Your task to perform on an android device: open chrome and create a bookmark for the current page Image 0: 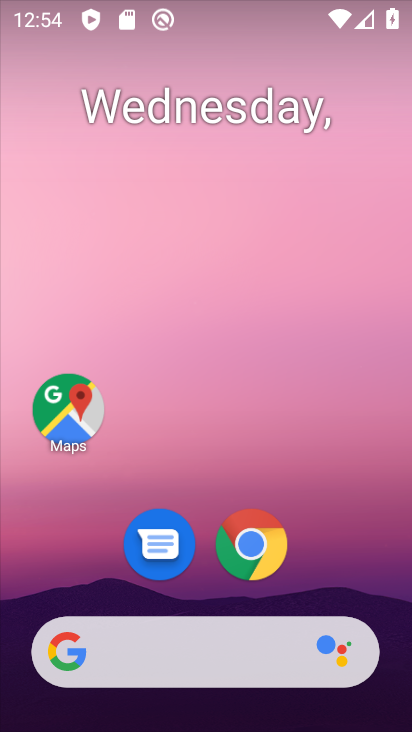
Step 0: click (244, 536)
Your task to perform on an android device: open chrome and create a bookmark for the current page Image 1: 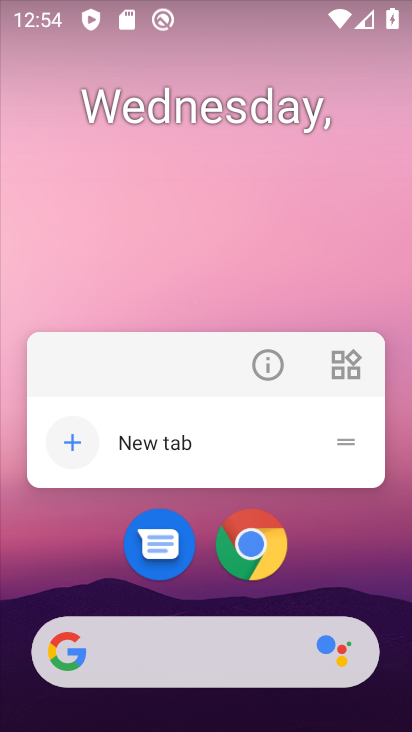
Step 1: click (242, 560)
Your task to perform on an android device: open chrome and create a bookmark for the current page Image 2: 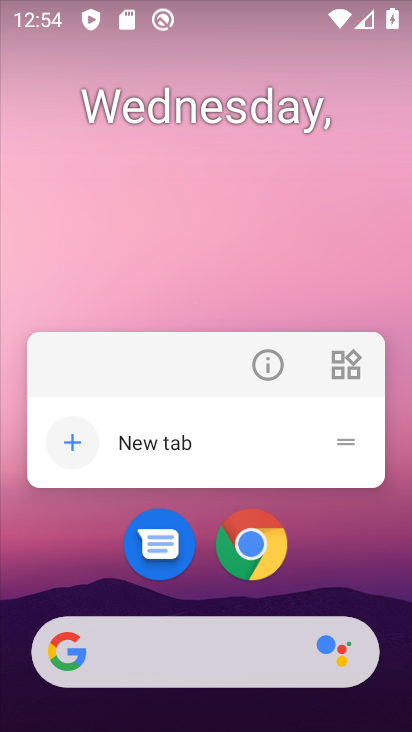
Step 2: click (242, 560)
Your task to perform on an android device: open chrome and create a bookmark for the current page Image 3: 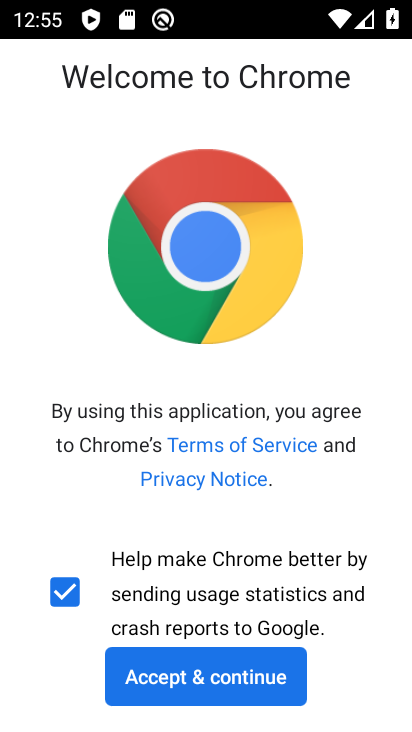
Step 3: click (199, 661)
Your task to perform on an android device: open chrome and create a bookmark for the current page Image 4: 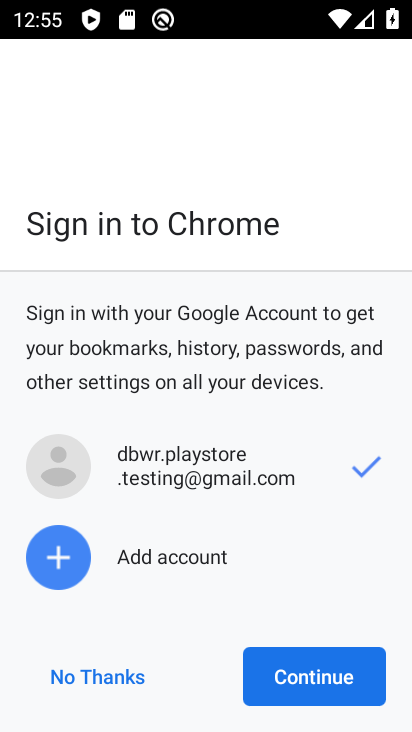
Step 4: click (272, 680)
Your task to perform on an android device: open chrome and create a bookmark for the current page Image 5: 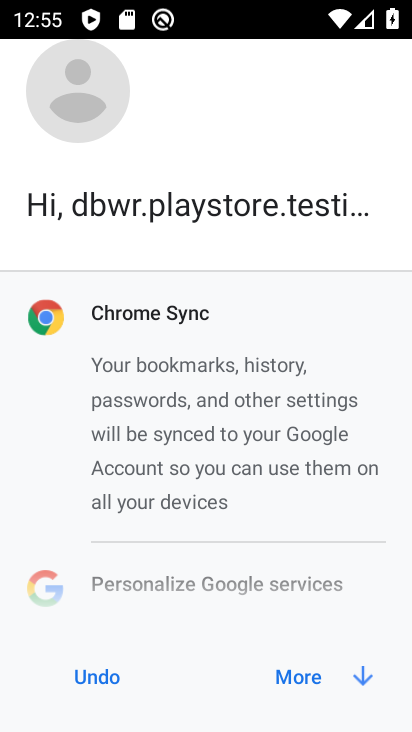
Step 5: click (271, 689)
Your task to perform on an android device: open chrome and create a bookmark for the current page Image 6: 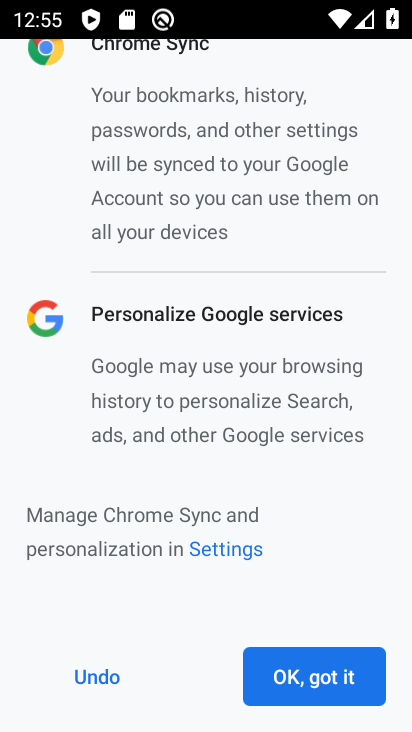
Step 6: click (268, 698)
Your task to perform on an android device: open chrome and create a bookmark for the current page Image 7: 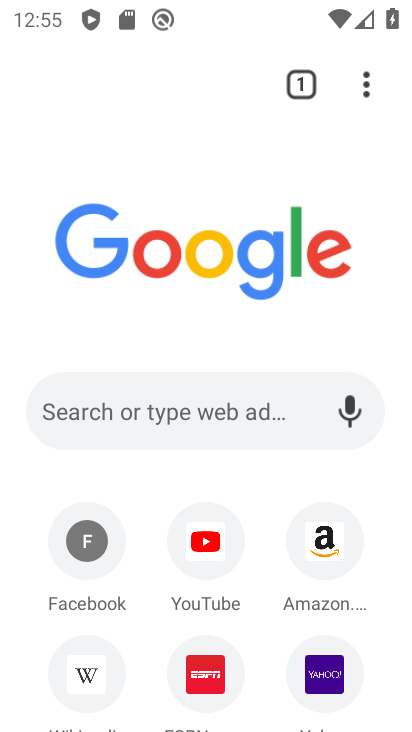
Step 7: click (362, 87)
Your task to perform on an android device: open chrome and create a bookmark for the current page Image 8: 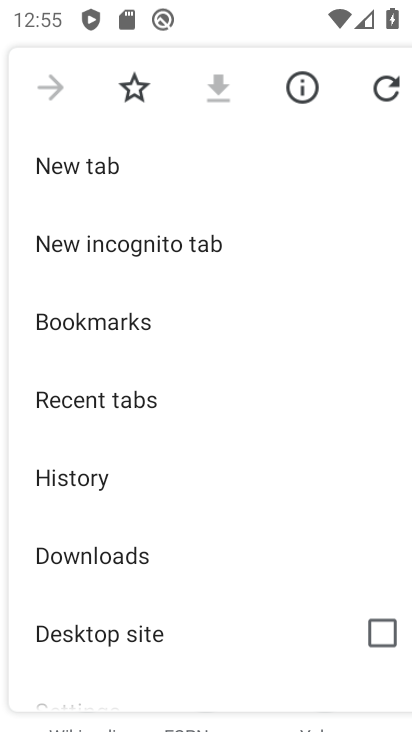
Step 8: click (130, 77)
Your task to perform on an android device: open chrome and create a bookmark for the current page Image 9: 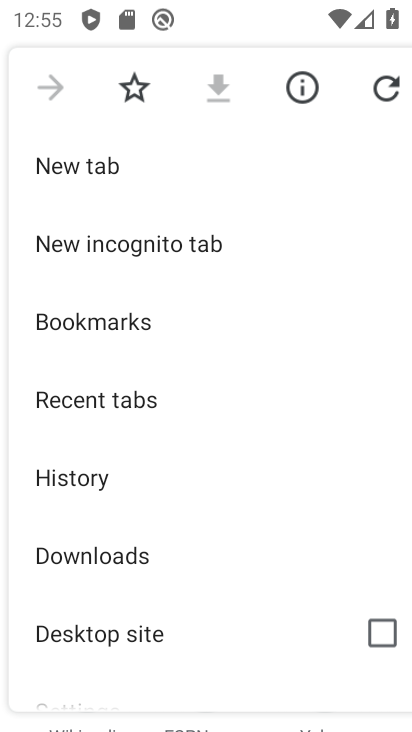
Step 9: click (126, 86)
Your task to perform on an android device: open chrome and create a bookmark for the current page Image 10: 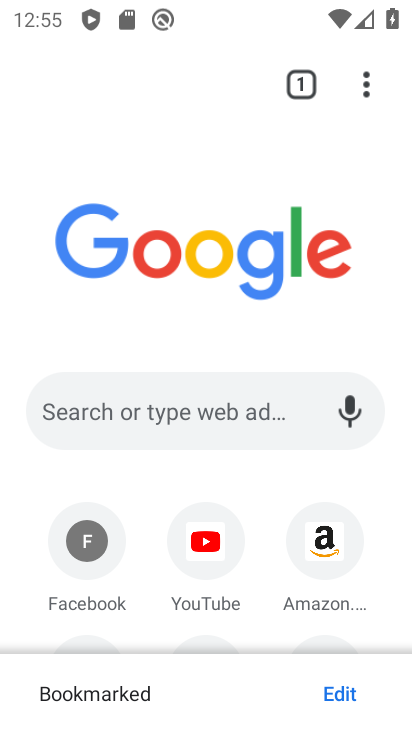
Step 10: task complete